Your task to perform on an android device: add a contact Image 0: 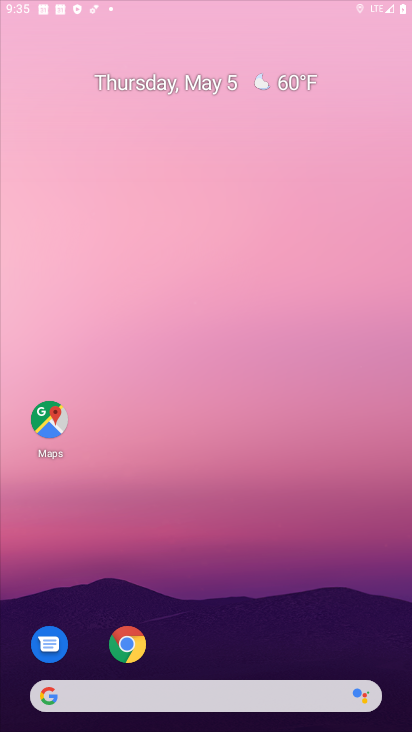
Step 0: click (277, 151)
Your task to perform on an android device: add a contact Image 1: 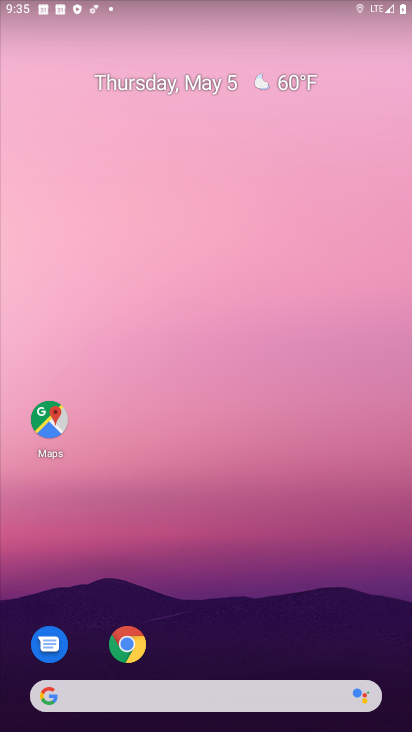
Step 1: drag from (230, 655) to (265, 278)
Your task to perform on an android device: add a contact Image 2: 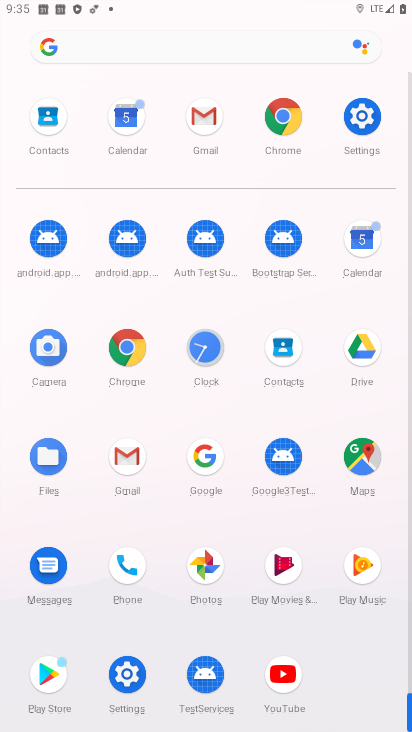
Step 2: click (289, 346)
Your task to perform on an android device: add a contact Image 3: 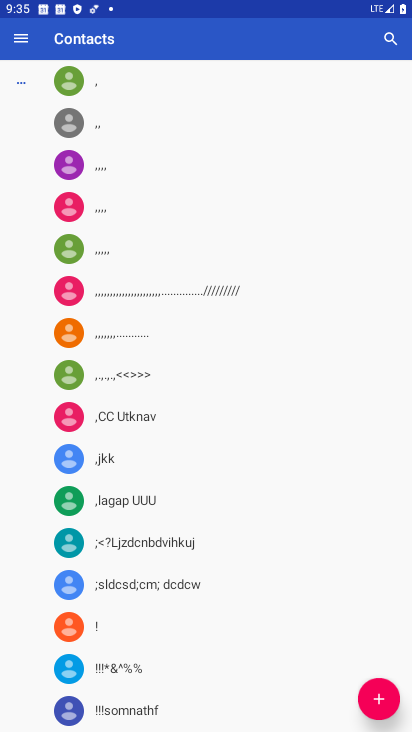
Step 3: drag from (202, 694) to (215, 346)
Your task to perform on an android device: add a contact Image 4: 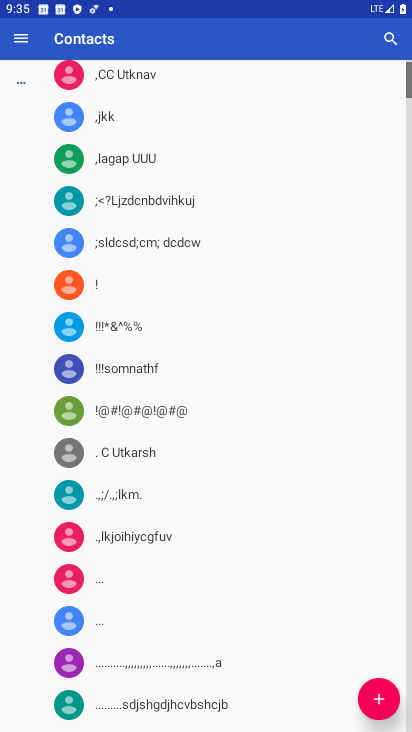
Step 4: drag from (182, 247) to (351, 731)
Your task to perform on an android device: add a contact Image 5: 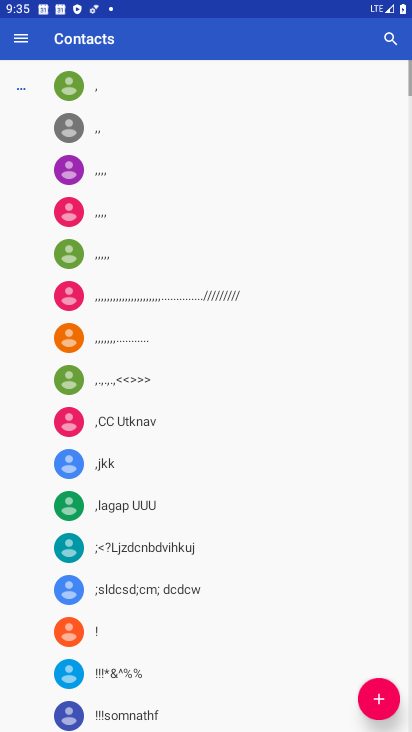
Step 5: click (376, 695)
Your task to perform on an android device: add a contact Image 6: 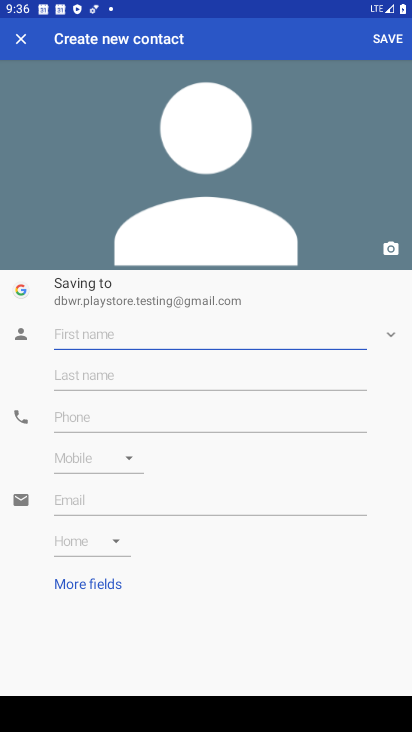
Step 6: type "fdt"
Your task to perform on an android device: add a contact Image 7: 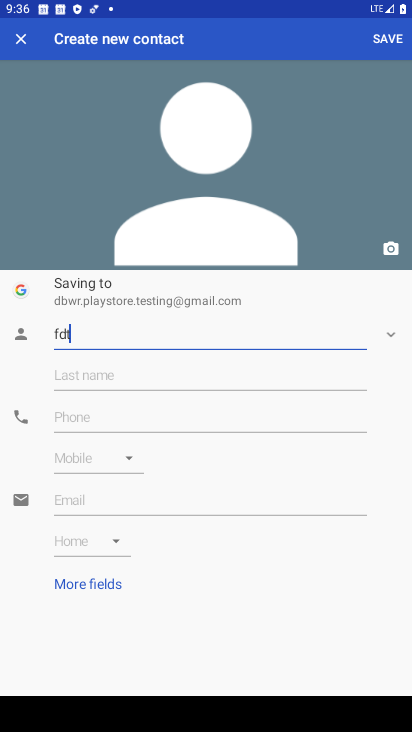
Step 7: click (400, 30)
Your task to perform on an android device: add a contact Image 8: 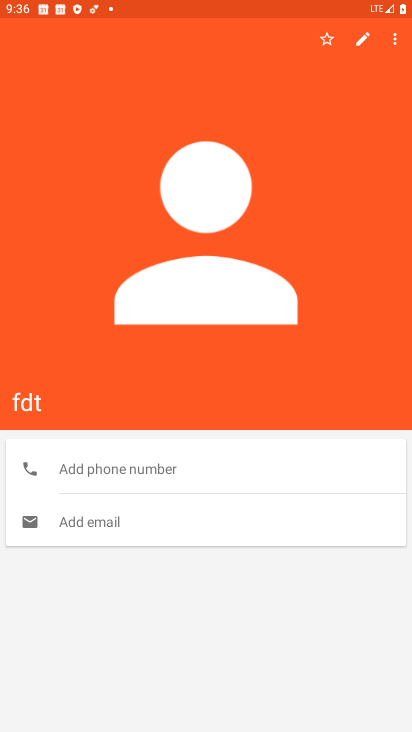
Step 8: task complete